Your task to perform on an android device: Open settings Image 0: 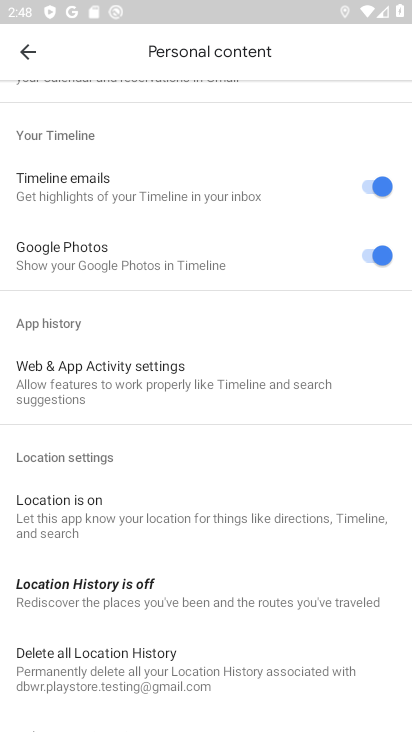
Step 0: press home button
Your task to perform on an android device: Open settings Image 1: 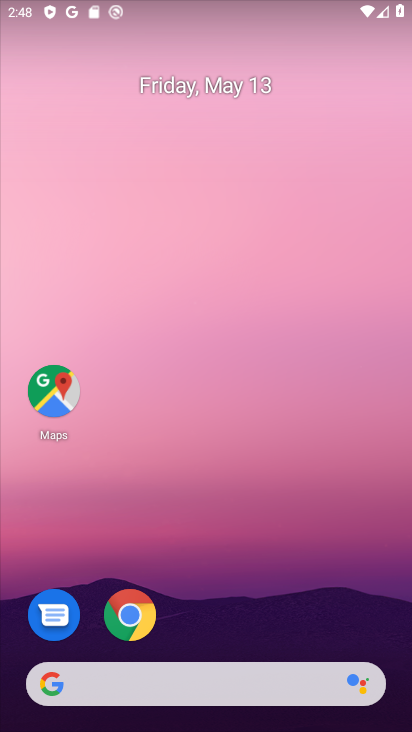
Step 1: drag from (168, 683) to (295, 199)
Your task to perform on an android device: Open settings Image 2: 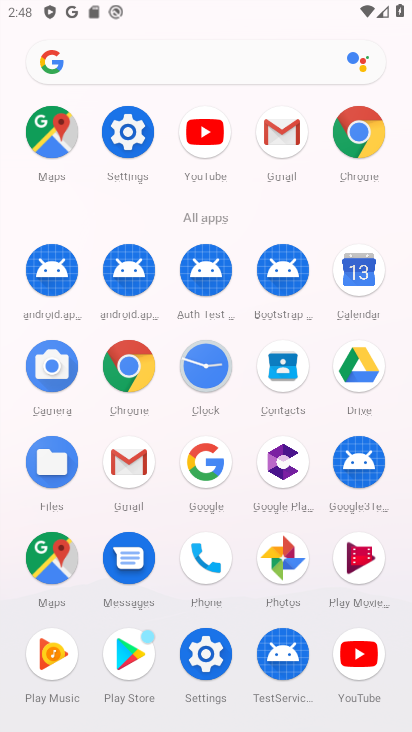
Step 2: click (134, 130)
Your task to perform on an android device: Open settings Image 3: 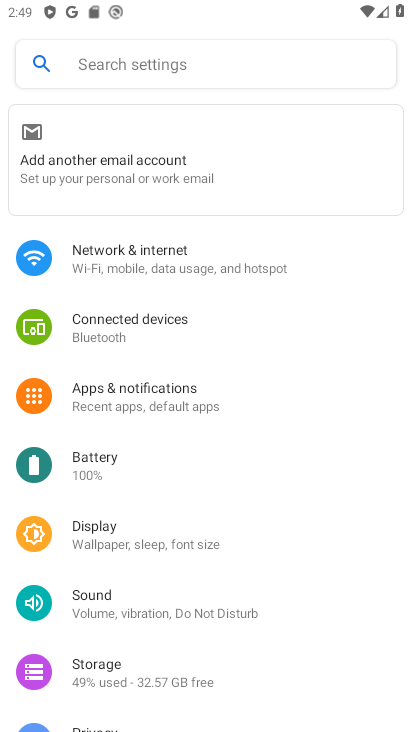
Step 3: task complete